Your task to perform on an android device: find photos in the google photos app Image 0: 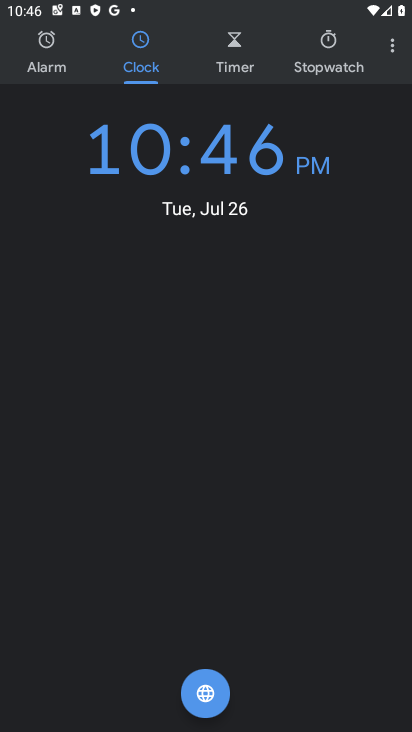
Step 0: press home button
Your task to perform on an android device: find photos in the google photos app Image 1: 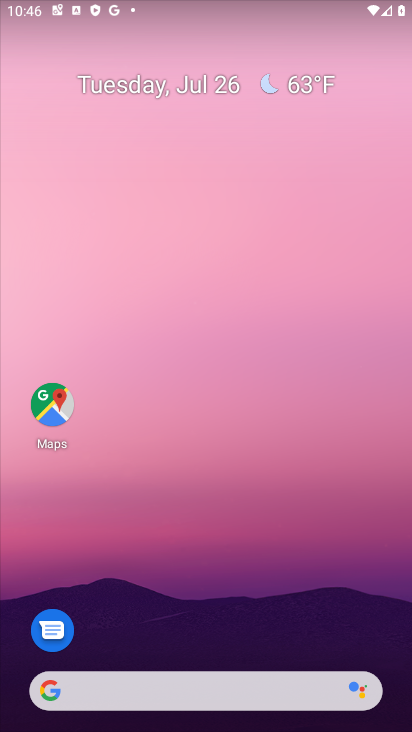
Step 1: drag from (265, 507) to (278, 27)
Your task to perform on an android device: find photos in the google photos app Image 2: 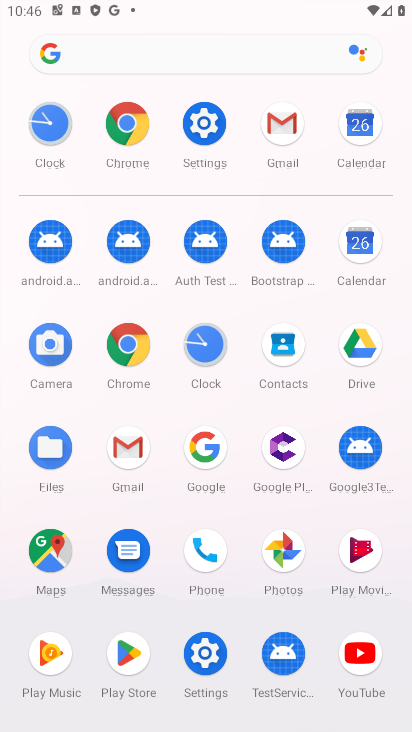
Step 2: click (277, 557)
Your task to perform on an android device: find photos in the google photos app Image 3: 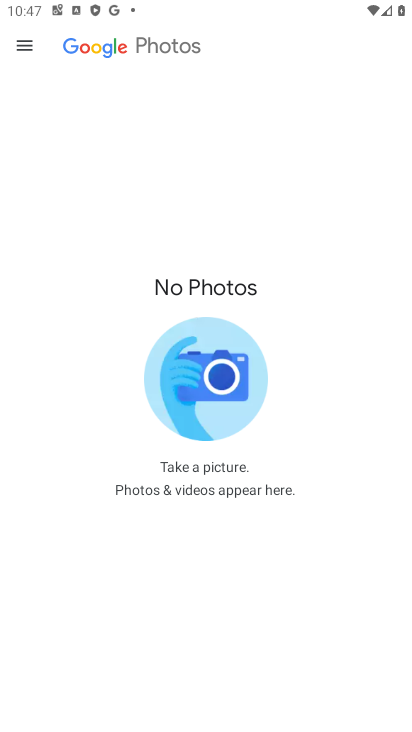
Step 3: task complete